Your task to perform on an android device: open the mobile data screen to see how much data has been used Image 0: 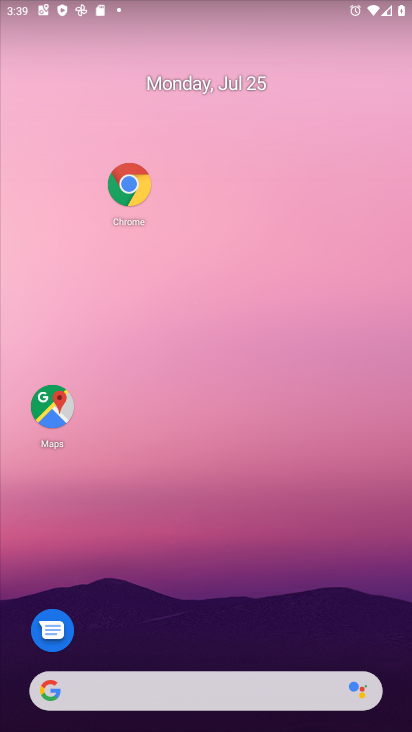
Step 0: drag from (279, 664) to (254, 101)
Your task to perform on an android device: open the mobile data screen to see how much data has been used Image 1: 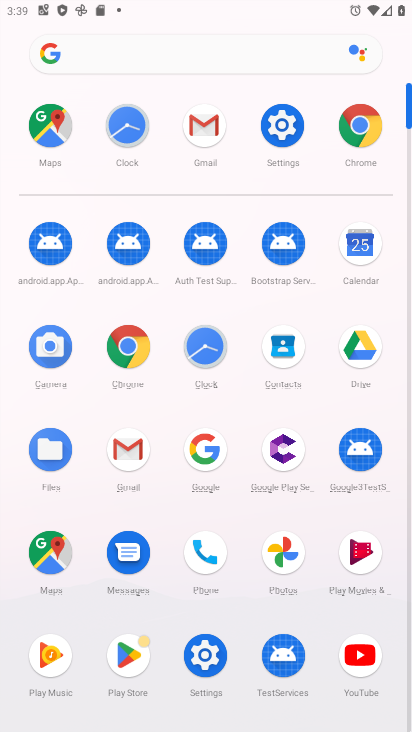
Step 1: click (276, 148)
Your task to perform on an android device: open the mobile data screen to see how much data has been used Image 2: 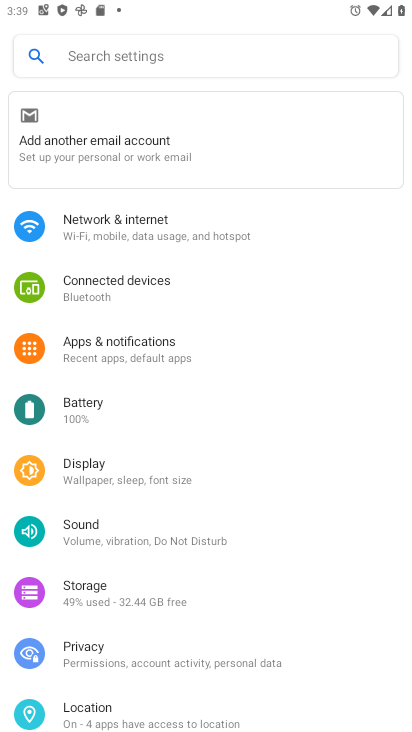
Step 2: click (234, 244)
Your task to perform on an android device: open the mobile data screen to see how much data has been used Image 3: 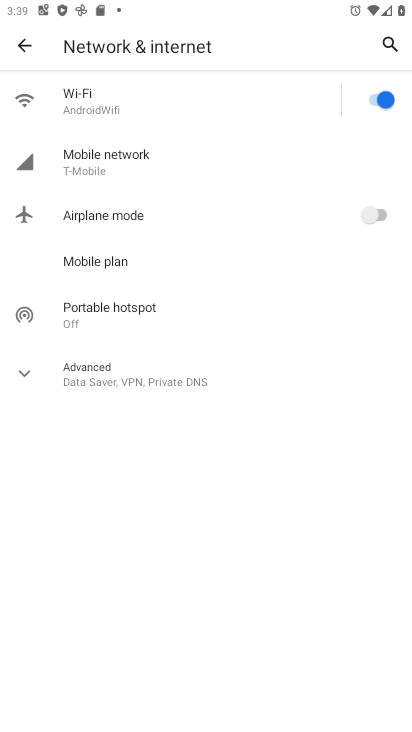
Step 3: task complete